Your task to perform on an android device: change alarm snooze length Image 0: 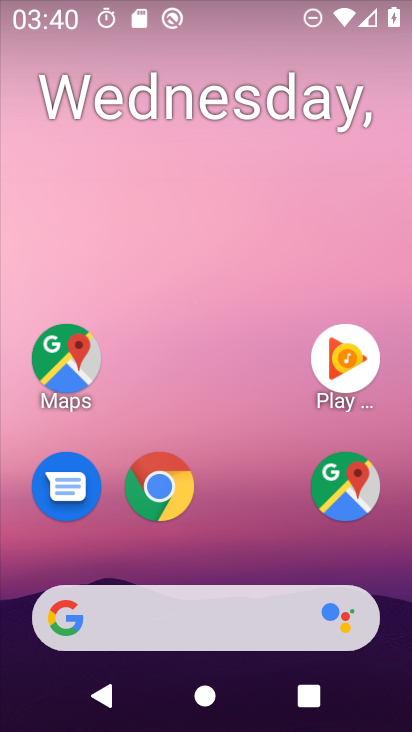
Step 0: press home button
Your task to perform on an android device: change alarm snooze length Image 1: 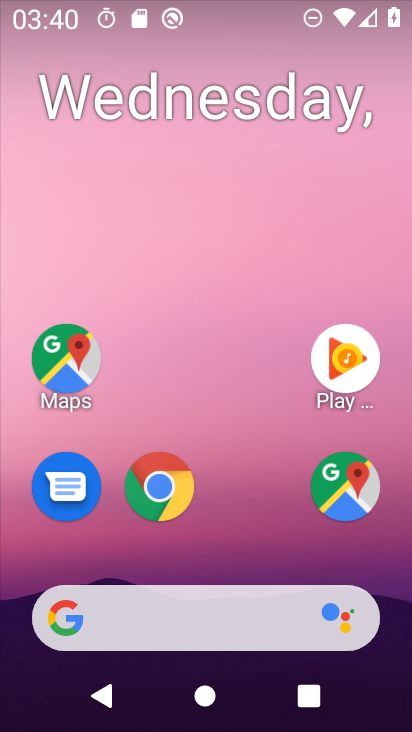
Step 1: drag from (252, 524) to (248, 130)
Your task to perform on an android device: change alarm snooze length Image 2: 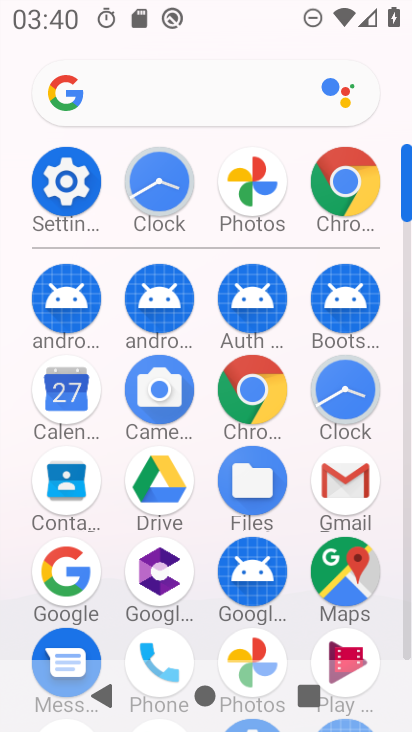
Step 2: click (336, 381)
Your task to perform on an android device: change alarm snooze length Image 3: 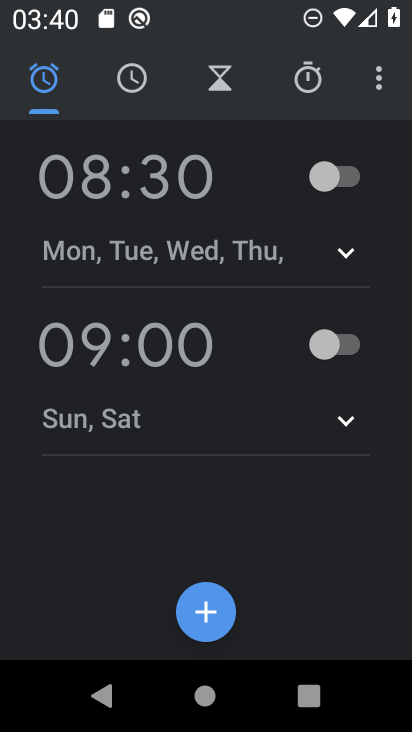
Step 3: click (380, 90)
Your task to perform on an android device: change alarm snooze length Image 4: 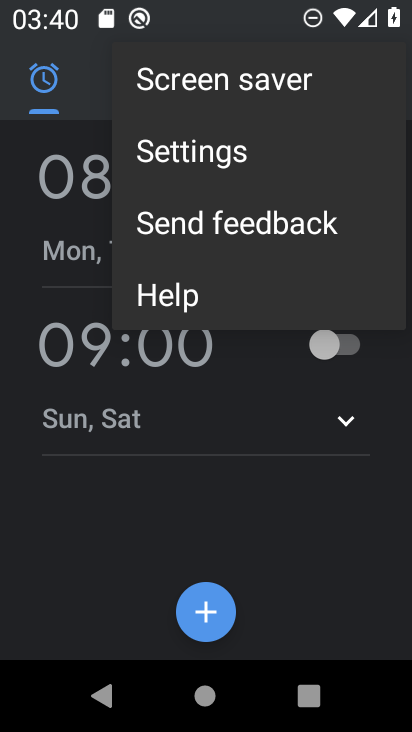
Step 4: click (341, 136)
Your task to perform on an android device: change alarm snooze length Image 5: 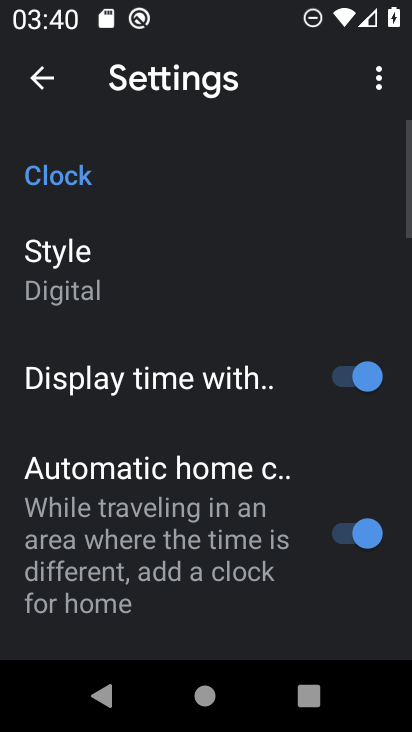
Step 5: drag from (286, 360) to (285, 294)
Your task to perform on an android device: change alarm snooze length Image 6: 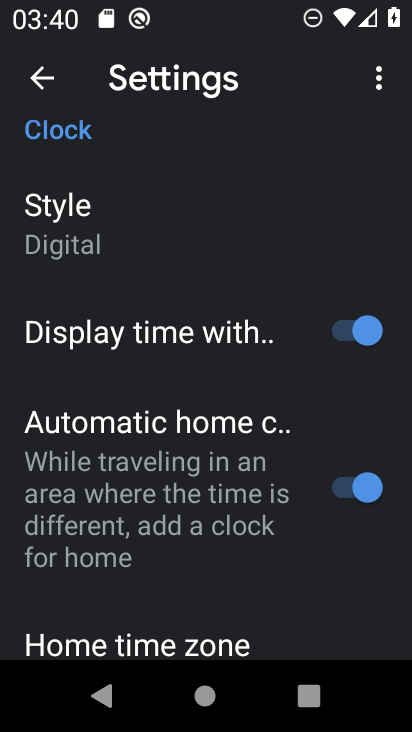
Step 6: drag from (294, 406) to (302, 318)
Your task to perform on an android device: change alarm snooze length Image 7: 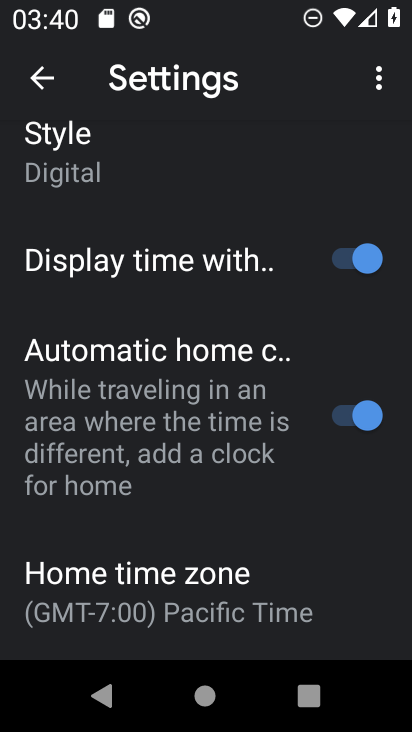
Step 7: drag from (308, 450) to (311, 346)
Your task to perform on an android device: change alarm snooze length Image 8: 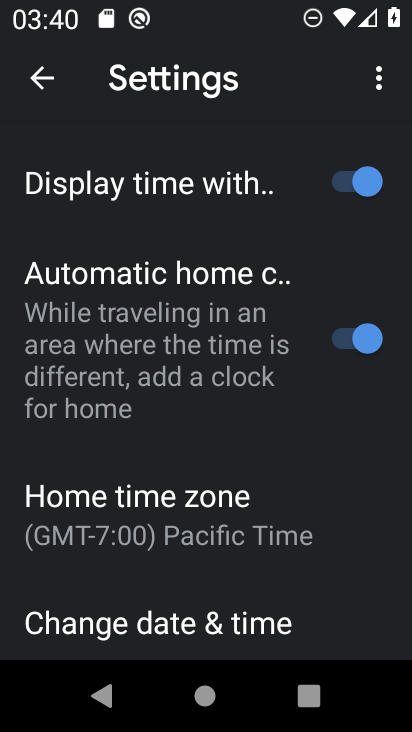
Step 8: drag from (294, 440) to (294, 371)
Your task to perform on an android device: change alarm snooze length Image 9: 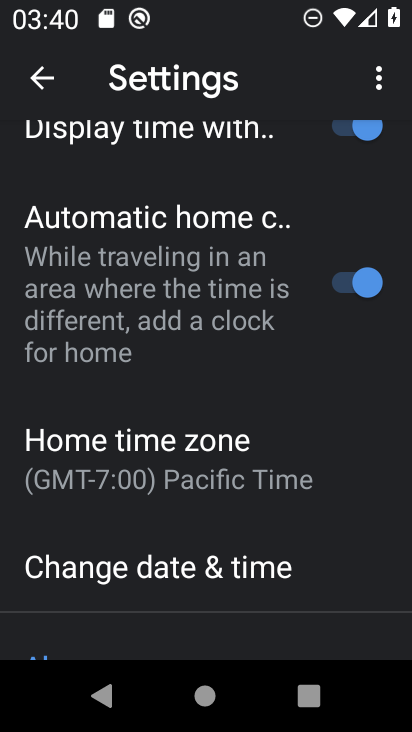
Step 9: drag from (298, 437) to (300, 378)
Your task to perform on an android device: change alarm snooze length Image 10: 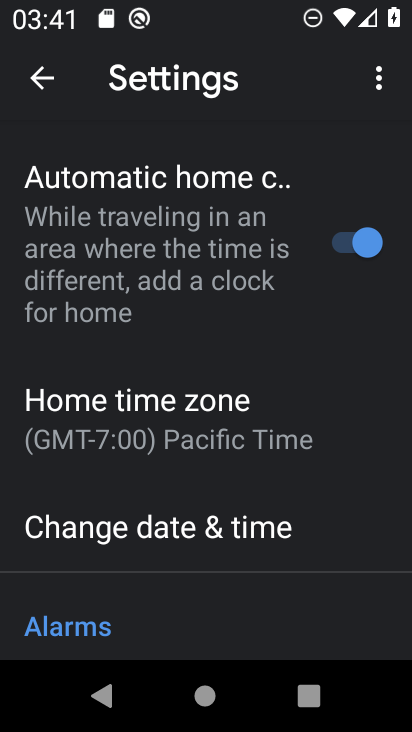
Step 10: drag from (315, 464) to (318, 385)
Your task to perform on an android device: change alarm snooze length Image 11: 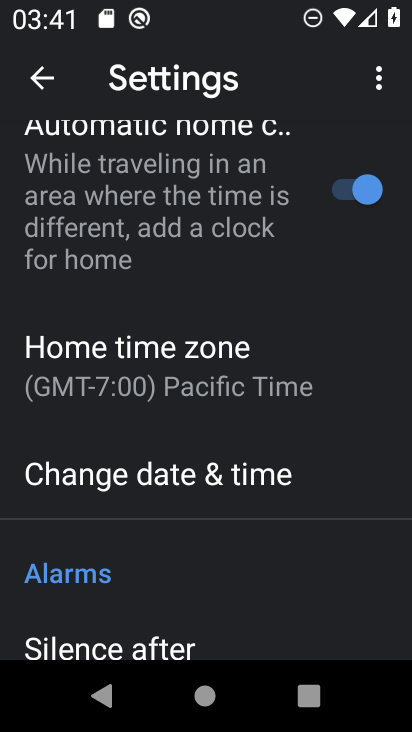
Step 11: drag from (327, 458) to (327, 375)
Your task to perform on an android device: change alarm snooze length Image 12: 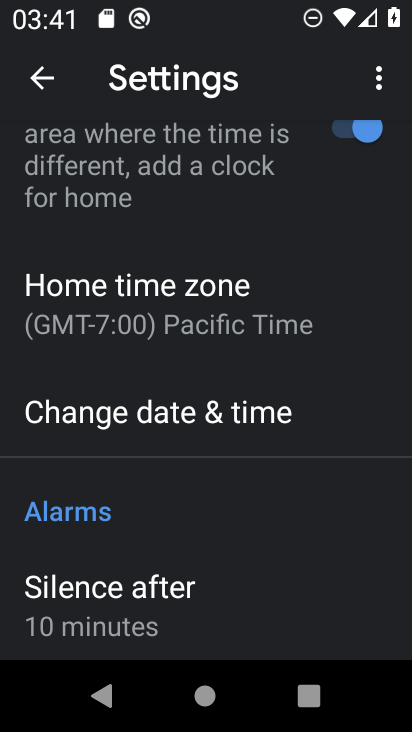
Step 12: drag from (323, 456) to (323, 391)
Your task to perform on an android device: change alarm snooze length Image 13: 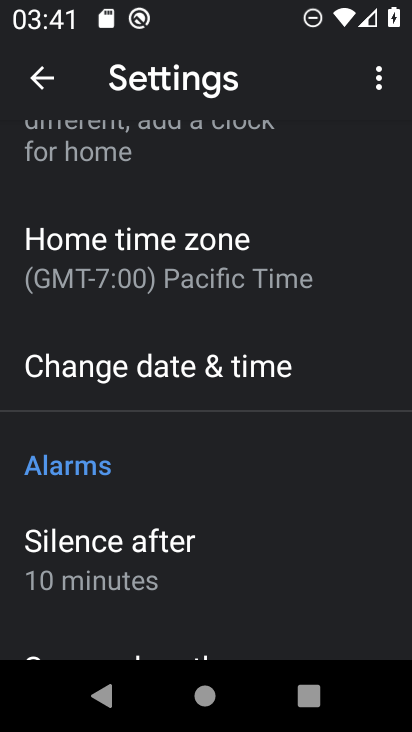
Step 13: drag from (304, 472) to (306, 398)
Your task to perform on an android device: change alarm snooze length Image 14: 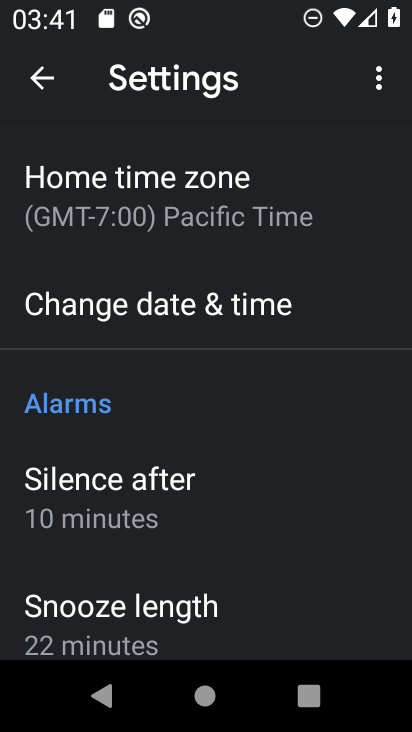
Step 14: drag from (304, 487) to (304, 400)
Your task to perform on an android device: change alarm snooze length Image 15: 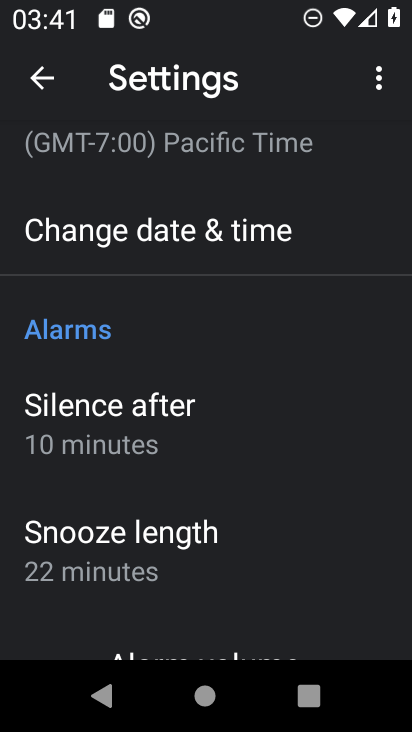
Step 15: drag from (295, 486) to (292, 381)
Your task to perform on an android device: change alarm snooze length Image 16: 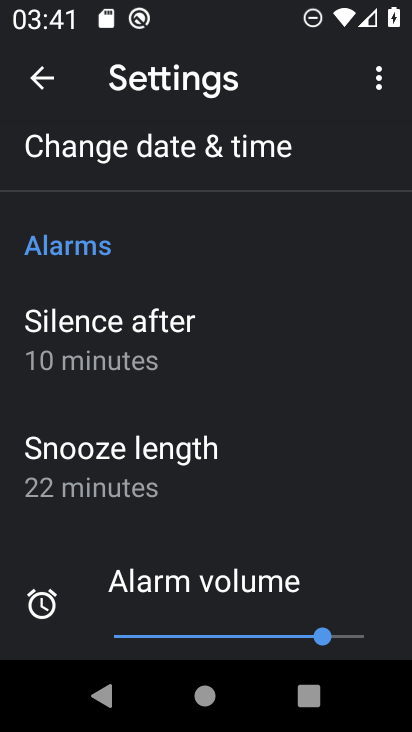
Step 16: drag from (289, 488) to (292, 410)
Your task to perform on an android device: change alarm snooze length Image 17: 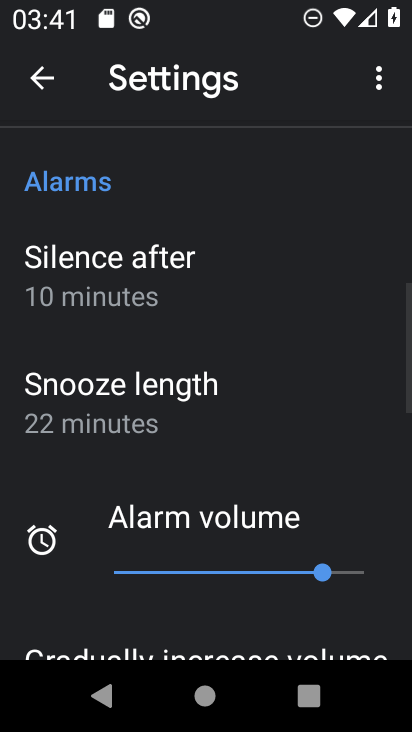
Step 17: click (292, 410)
Your task to perform on an android device: change alarm snooze length Image 18: 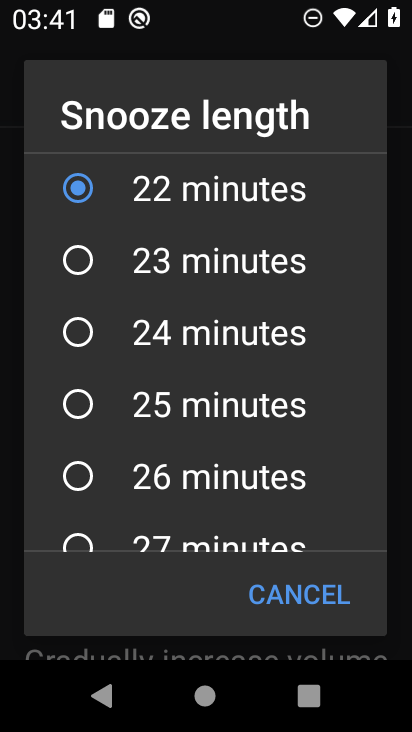
Step 18: click (246, 396)
Your task to perform on an android device: change alarm snooze length Image 19: 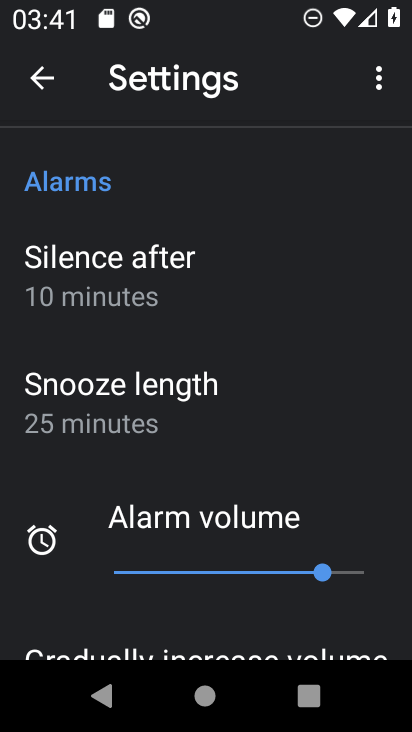
Step 19: task complete